Your task to perform on an android device: turn off wifi Image 0: 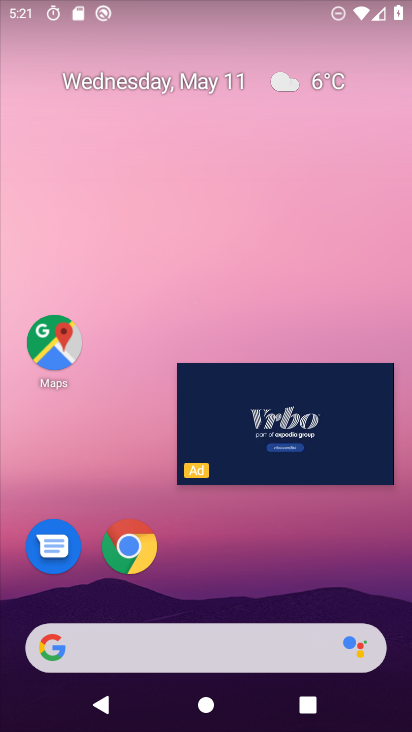
Step 0: click (271, 427)
Your task to perform on an android device: turn off wifi Image 1: 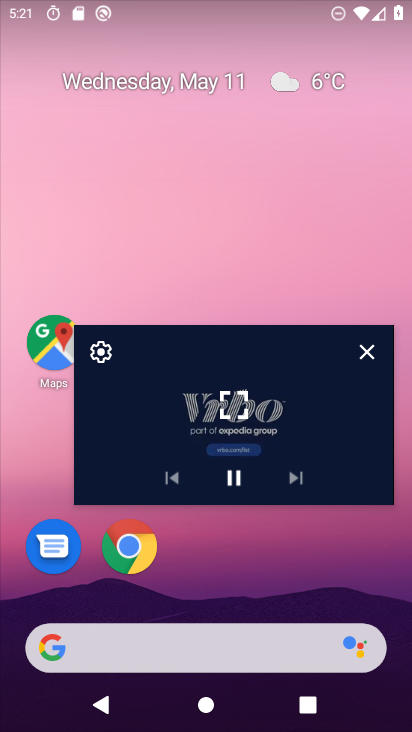
Step 1: click (369, 347)
Your task to perform on an android device: turn off wifi Image 2: 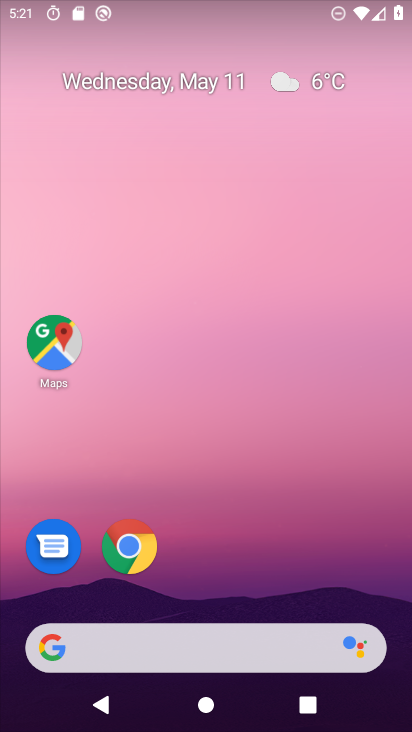
Step 2: drag from (209, 583) to (209, 234)
Your task to perform on an android device: turn off wifi Image 3: 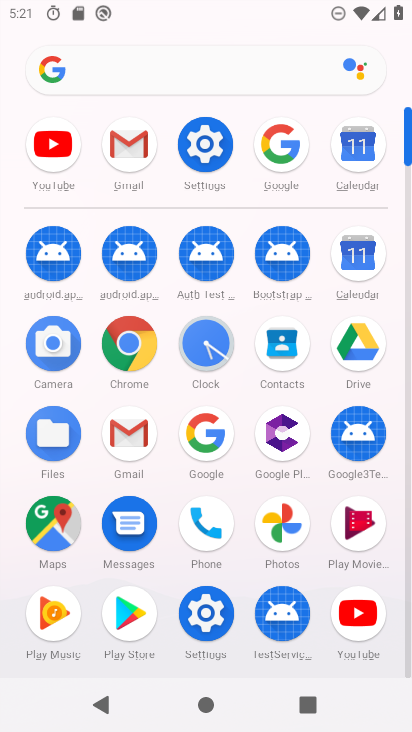
Step 3: click (213, 134)
Your task to perform on an android device: turn off wifi Image 4: 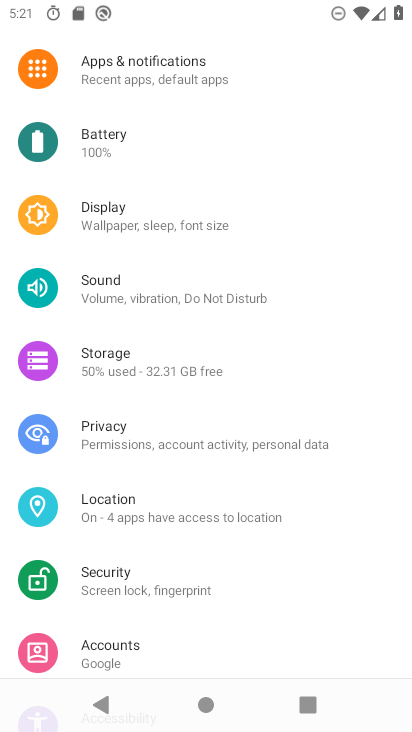
Step 4: click (174, 68)
Your task to perform on an android device: turn off wifi Image 5: 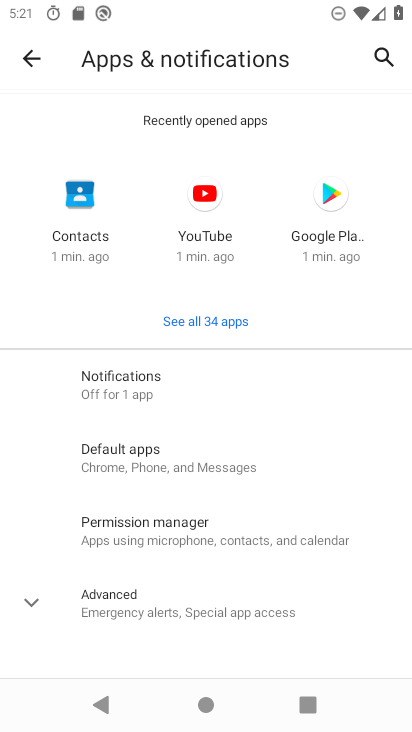
Step 5: click (27, 58)
Your task to perform on an android device: turn off wifi Image 6: 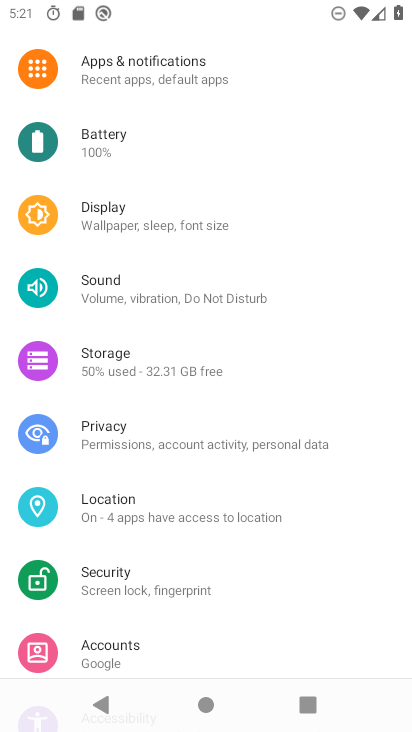
Step 6: drag from (233, 112) to (211, 502)
Your task to perform on an android device: turn off wifi Image 7: 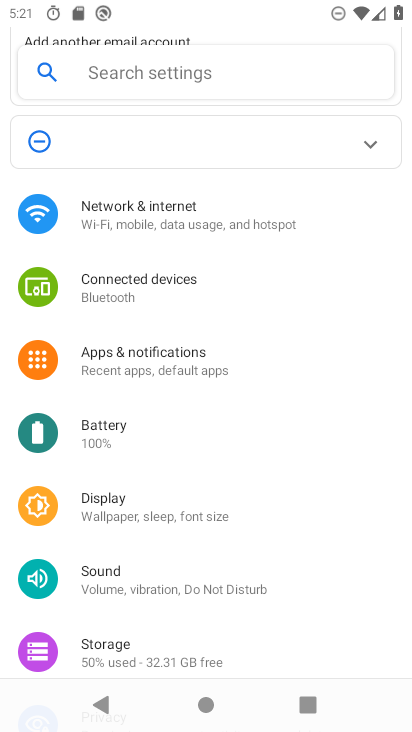
Step 7: click (219, 225)
Your task to perform on an android device: turn off wifi Image 8: 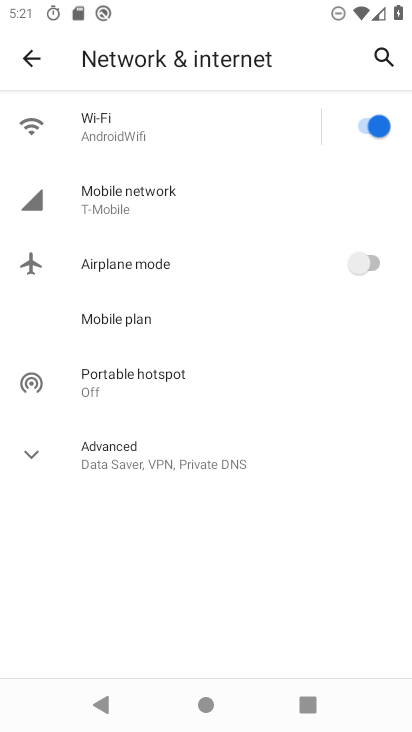
Step 8: click (367, 124)
Your task to perform on an android device: turn off wifi Image 9: 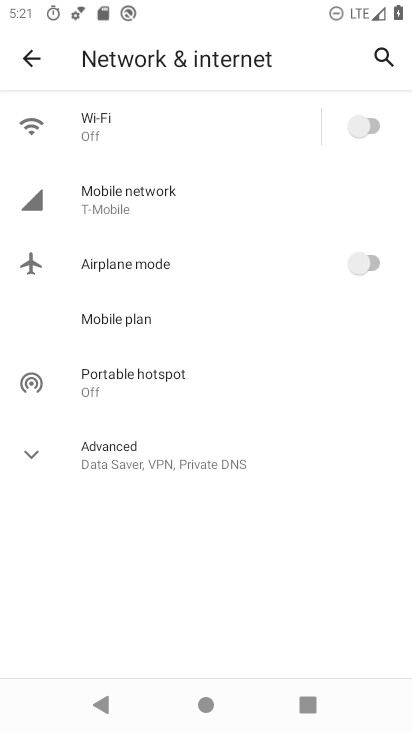
Step 9: task complete